Your task to perform on an android device: Go to privacy settings Image 0: 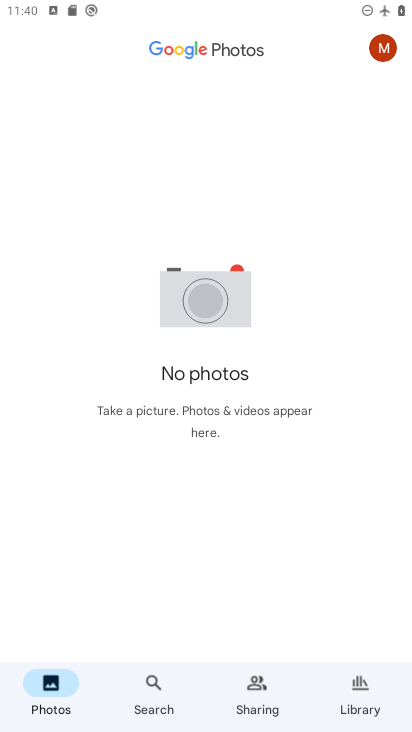
Step 0: press home button
Your task to perform on an android device: Go to privacy settings Image 1: 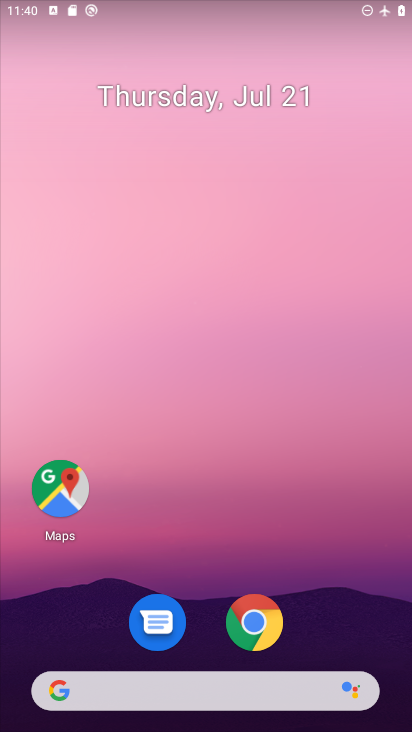
Step 1: drag from (246, 398) to (388, 646)
Your task to perform on an android device: Go to privacy settings Image 2: 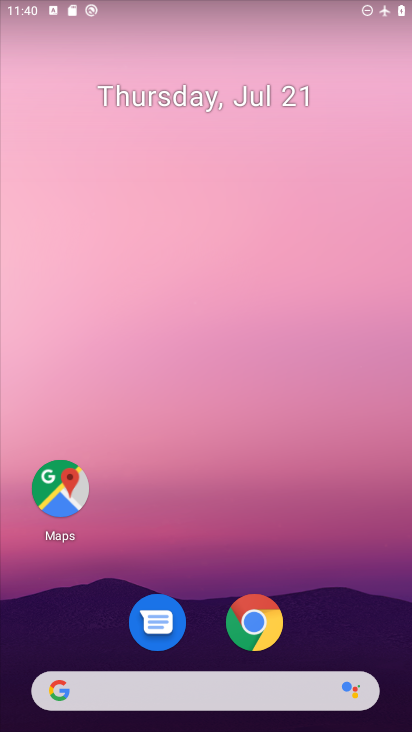
Step 2: drag from (171, 715) to (303, 52)
Your task to perform on an android device: Go to privacy settings Image 3: 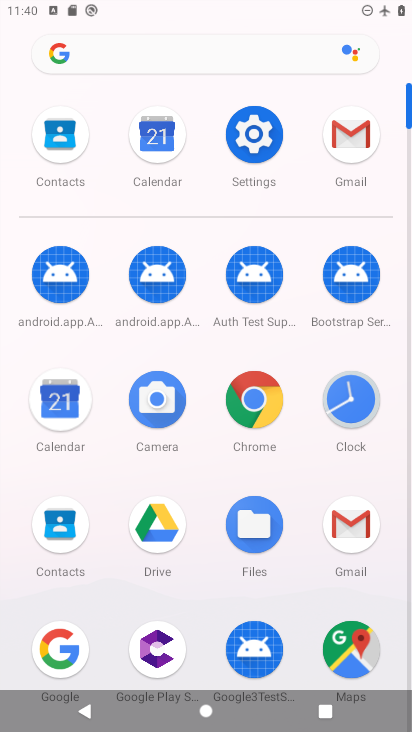
Step 3: click (243, 128)
Your task to perform on an android device: Go to privacy settings Image 4: 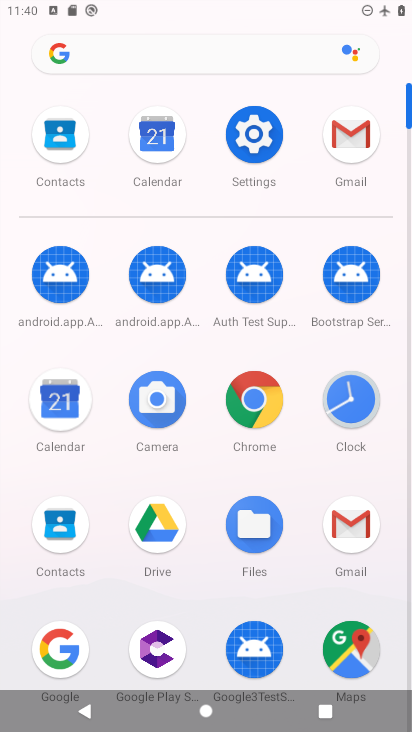
Step 4: click (243, 128)
Your task to perform on an android device: Go to privacy settings Image 5: 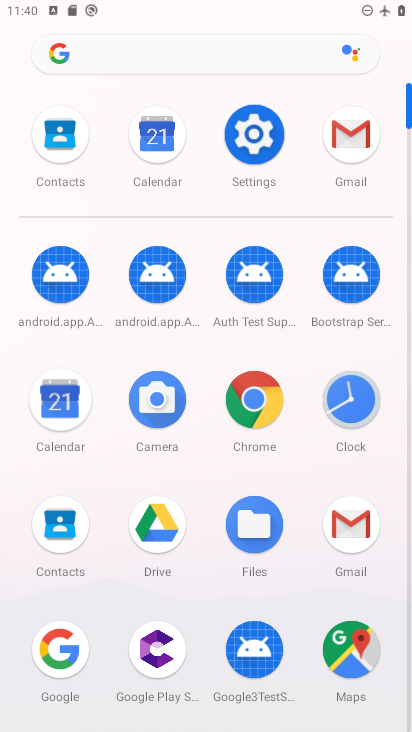
Step 5: click (243, 128)
Your task to perform on an android device: Go to privacy settings Image 6: 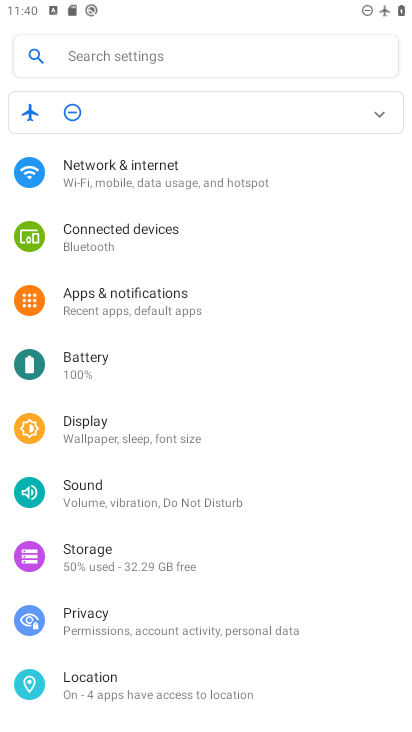
Step 6: click (136, 612)
Your task to perform on an android device: Go to privacy settings Image 7: 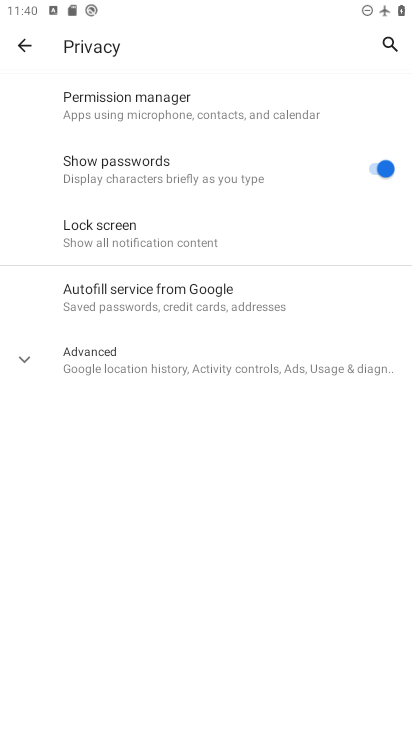
Step 7: task complete